Your task to perform on an android device: Go to Google Image 0: 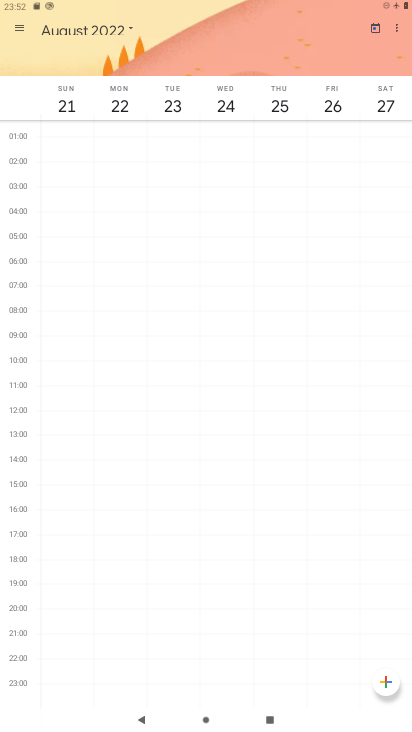
Step 0: press home button
Your task to perform on an android device: Go to Google Image 1: 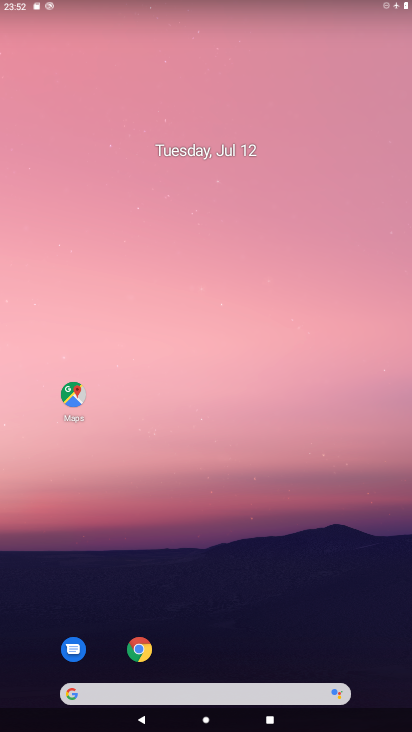
Step 1: click (136, 650)
Your task to perform on an android device: Go to Google Image 2: 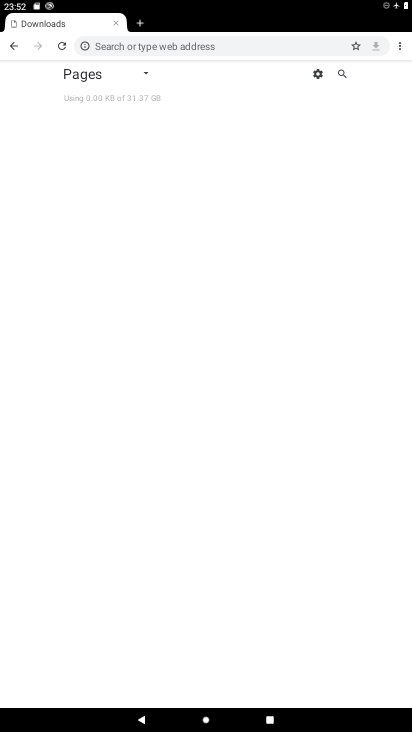
Step 2: task complete